Your task to perform on an android device: check storage Image 0: 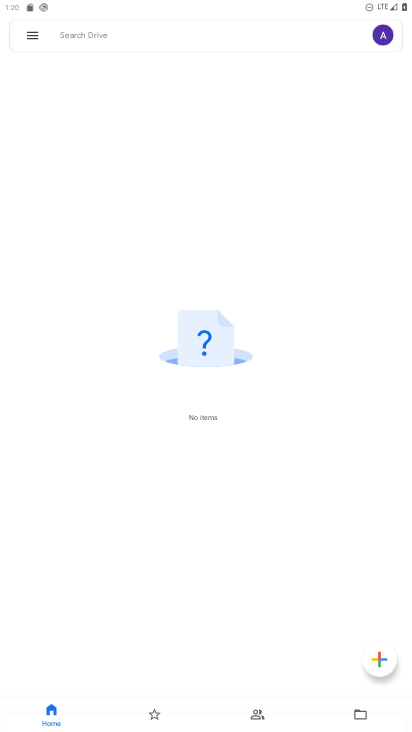
Step 0: drag from (230, 582) to (261, 222)
Your task to perform on an android device: check storage Image 1: 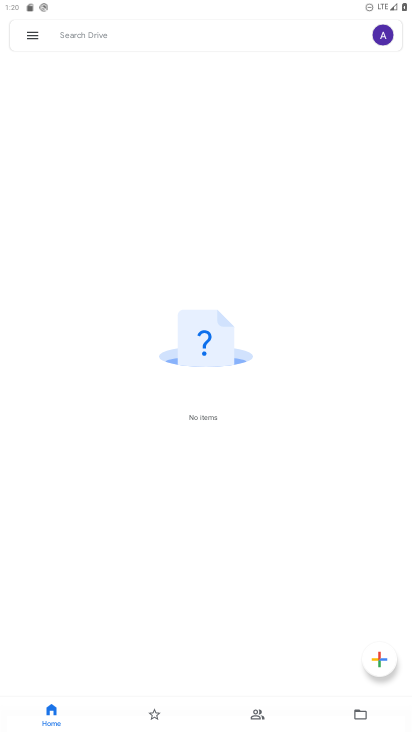
Step 1: press home button
Your task to perform on an android device: check storage Image 2: 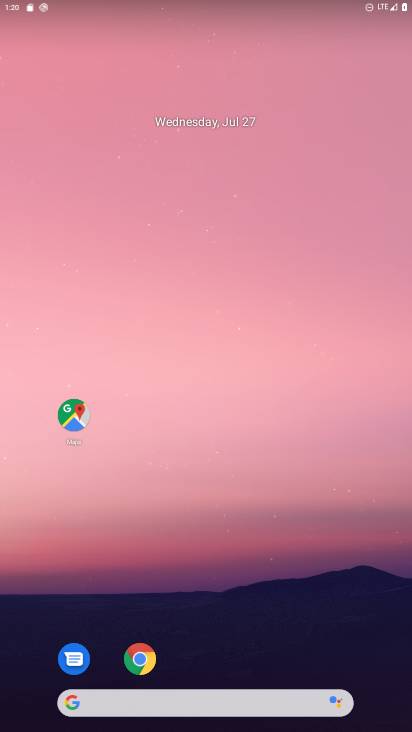
Step 2: drag from (206, 630) to (259, 115)
Your task to perform on an android device: check storage Image 3: 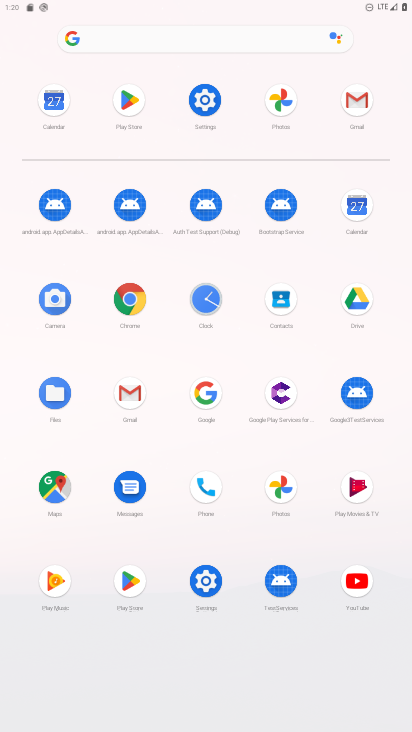
Step 3: click (189, 574)
Your task to perform on an android device: check storage Image 4: 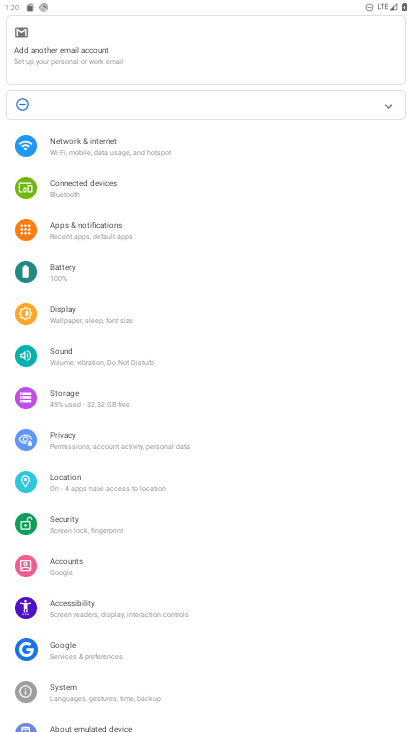
Step 4: click (65, 395)
Your task to perform on an android device: check storage Image 5: 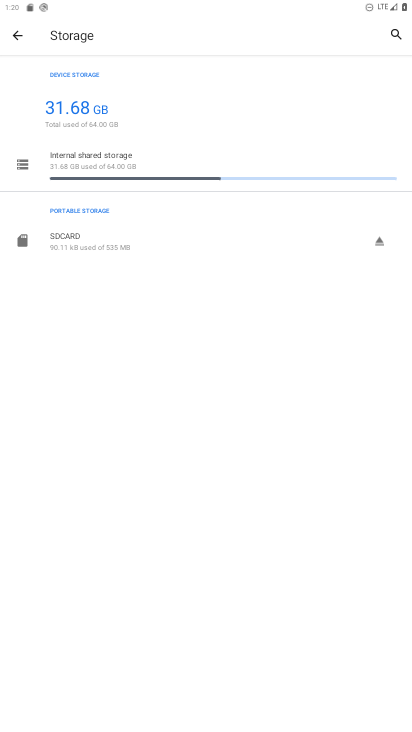
Step 5: click (121, 130)
Your task to perform on an android device: check storage Image 6: 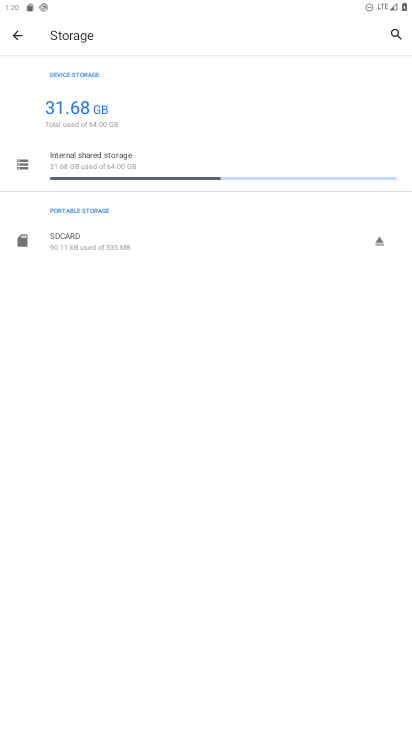
Step 6: click (116, 161)
Your task to perform on an android device: check storage Image 7: 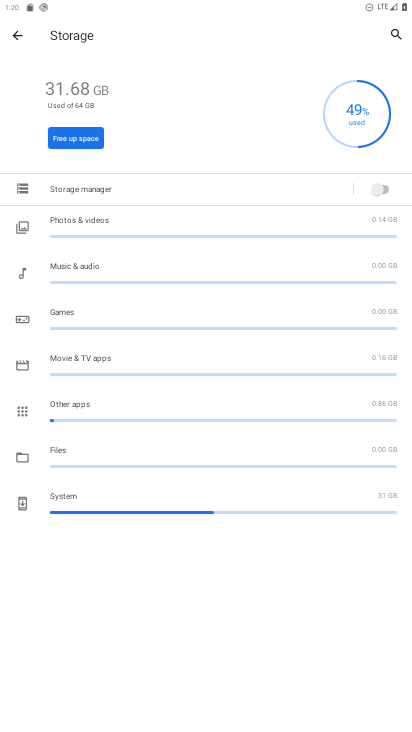
Step 7: task complete